Your task to perform on an android device: Find coffee shops on Maps Image 0: 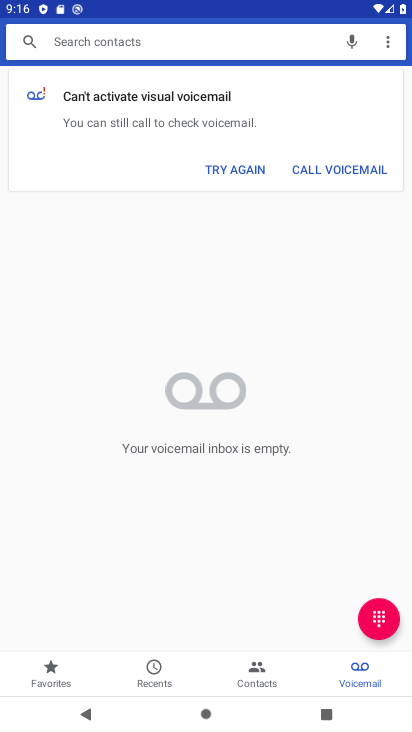
Step 0: press home button
Your task to perform on an android device: Find coffee shops on Maps Image 1: 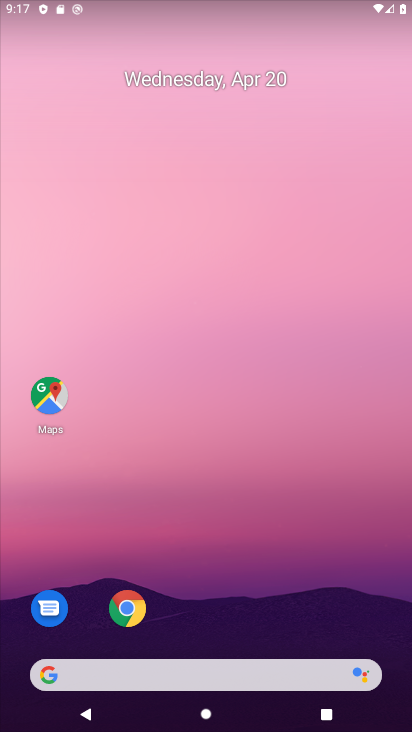
Step 1: drag from (230, 629) to (191, 623)
Your task to perform on an android device: Find coffee shops on Maps Image 2: 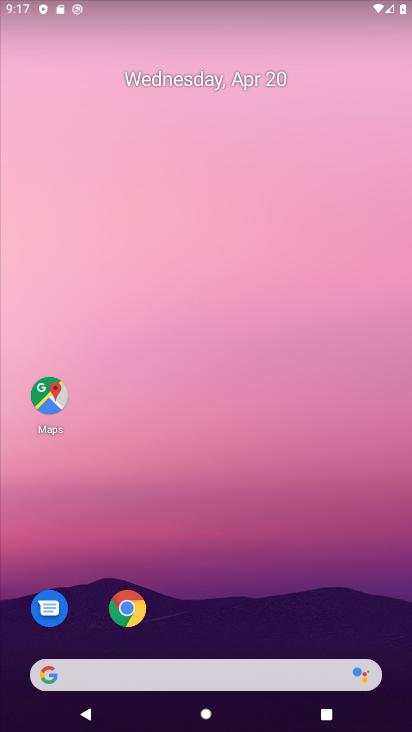
Step 2: click (57, 408)
Your task to perform on an android device: Find coffee shops on Maps Image 3: 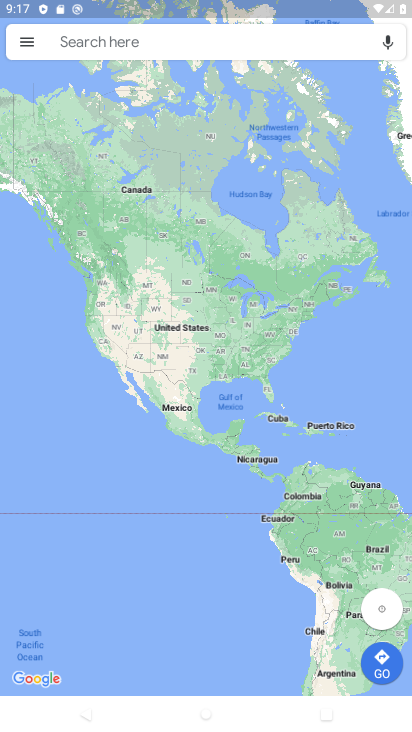
Step 3: click (141, 31)
Your task to perform on an android device: Find coffee shops on Maps Image 4: 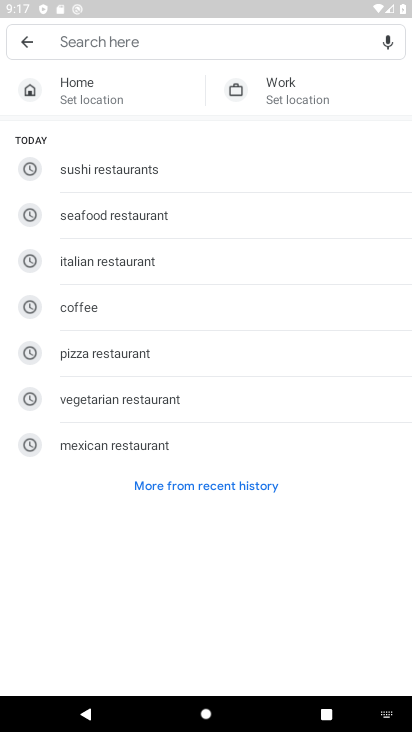
Step 4: click (129, 48)
Your task to perform on an android device: Find coffee shops on Maps Image 5: 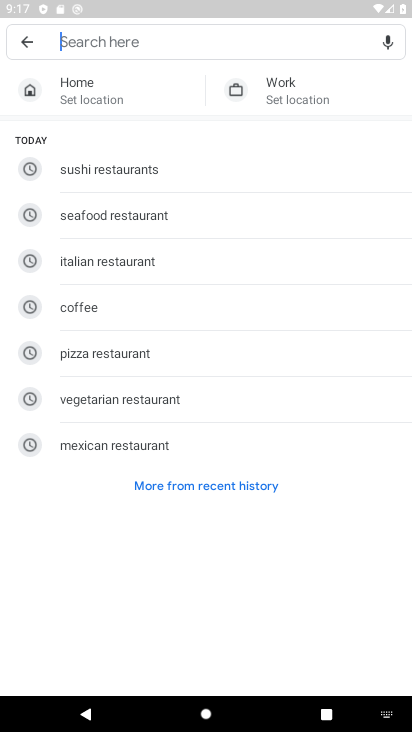
Step 5: type "coffee shops"
Your task to perform on an android device: Find coffee shops on Maps Image 6: 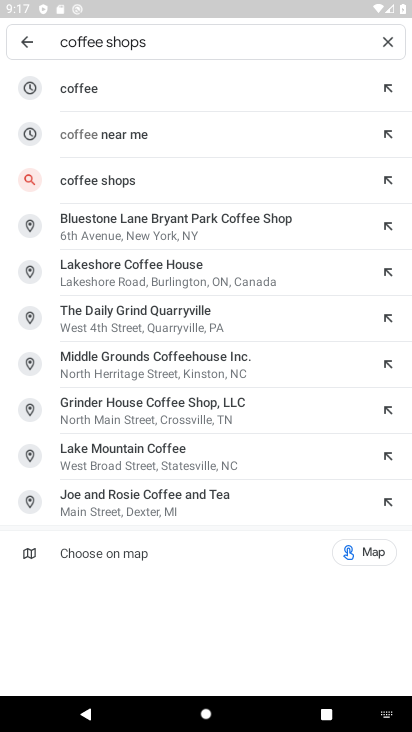
Step 6: click (111, 186)
Your task to perform on an android device: Find coffee shops on Maps Image 7: 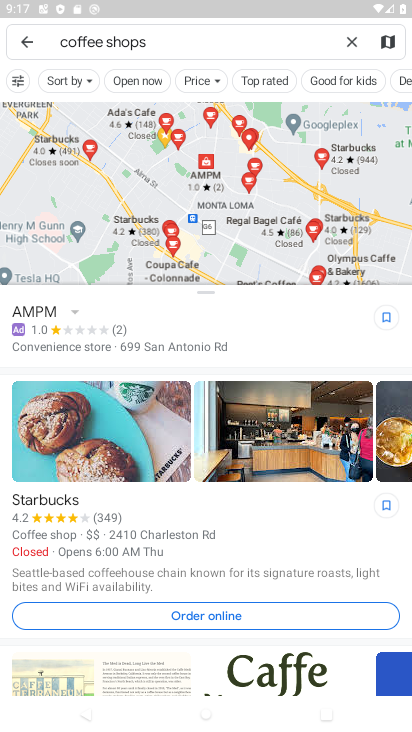
Step 7: task complete